Your task to perform on an android device: change alarm snooze length Image 0: 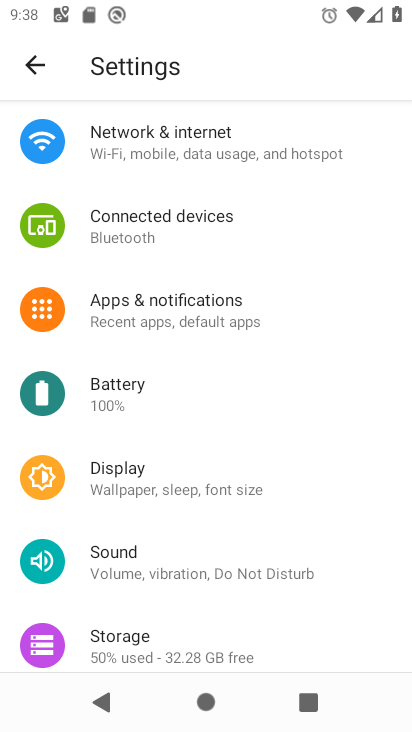
Step 0: press home button
Your task to perform on an android device: change alarm snooze length Image 1: 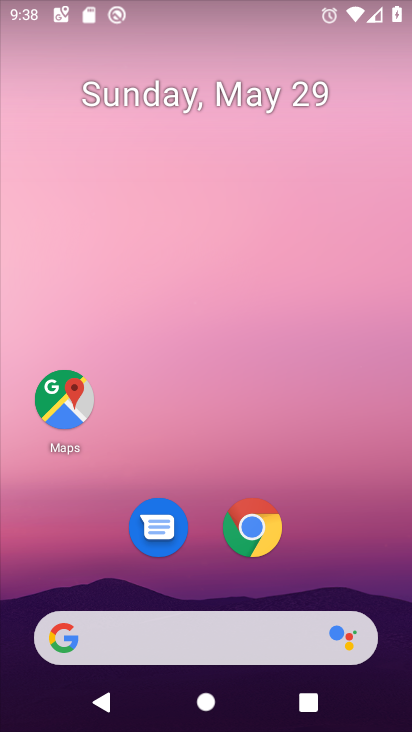
Step 1: drag from (204, 582) to (200, 107)
Your task to perform on an android device: change alarm snooze length Image 2: 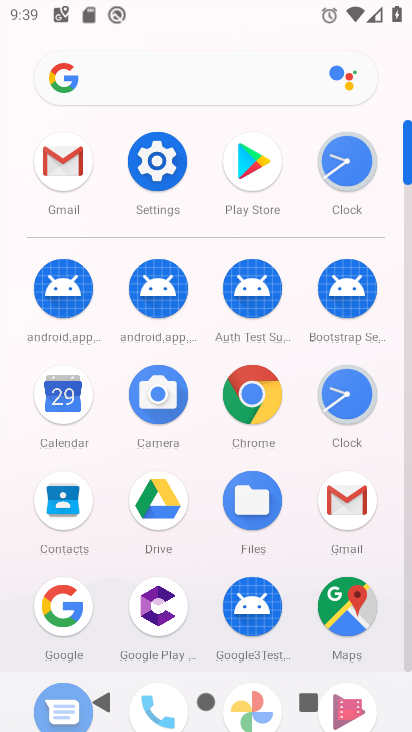
Step 2: click (345, 384)
Your task to perform on an android device: change alarm snooze length Image 3: 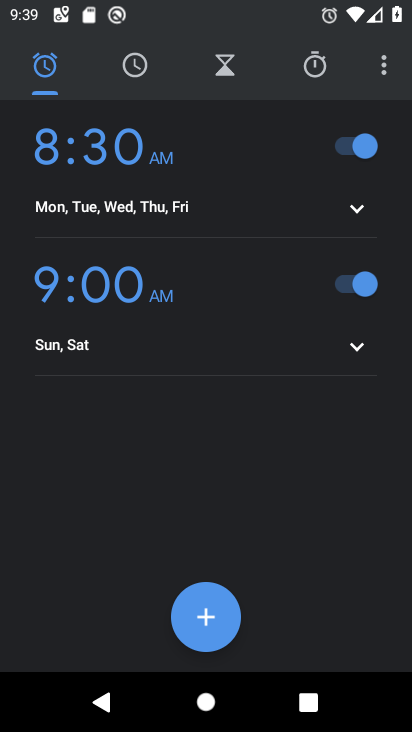
Step 3: click (378, 60)
Your task to perform on an android device: change alarm snooze length Image 4: 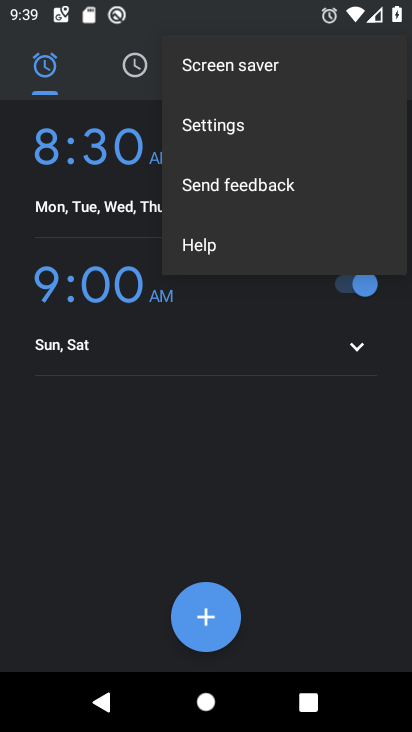
Step 4: click (253, 120)
Your task to perform on an android device: change alarm snooze length Image 5: 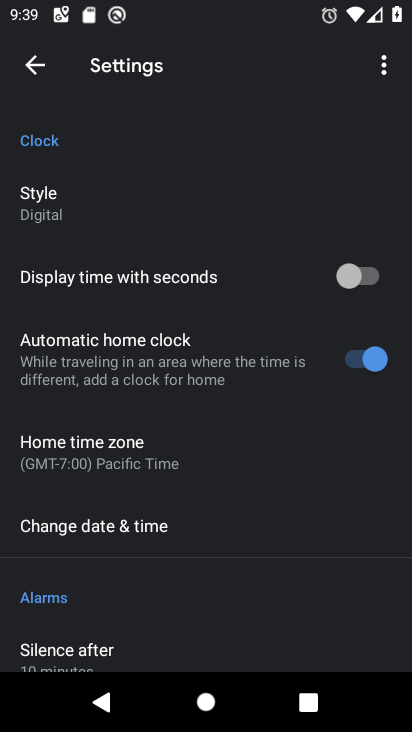
Step 5: drag from (170, 639) to (171, 169)
Your task to perform on an android device: change alarm snooze length Image 6: 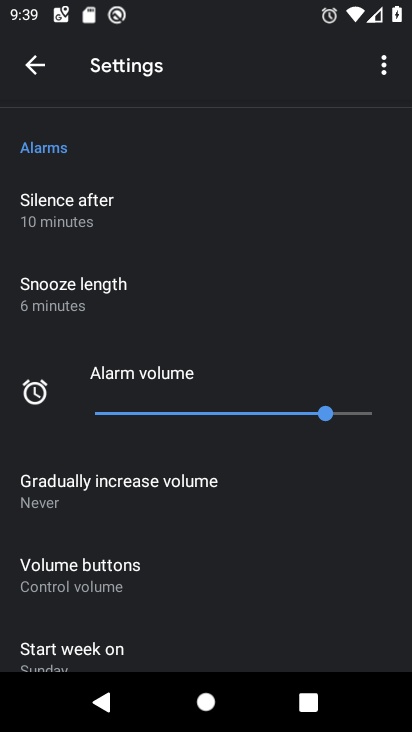
Step 6: click (149, 293)
Your task to perform on an android device: change alarm snooze length Image 7: 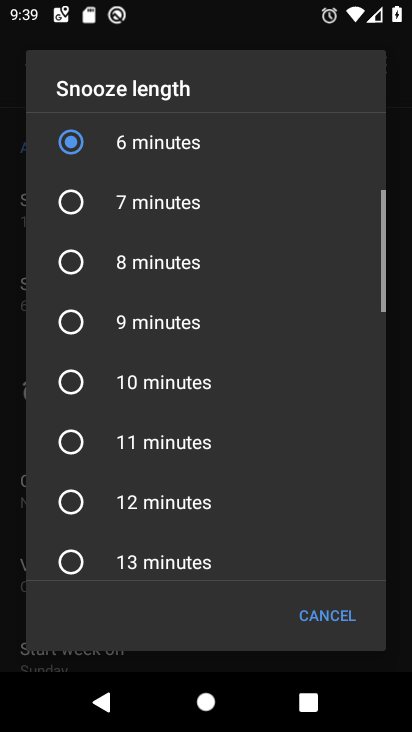
Step 7: click (72, 324)
Your task to perform on an android device: change alarm snooze length Image 8: 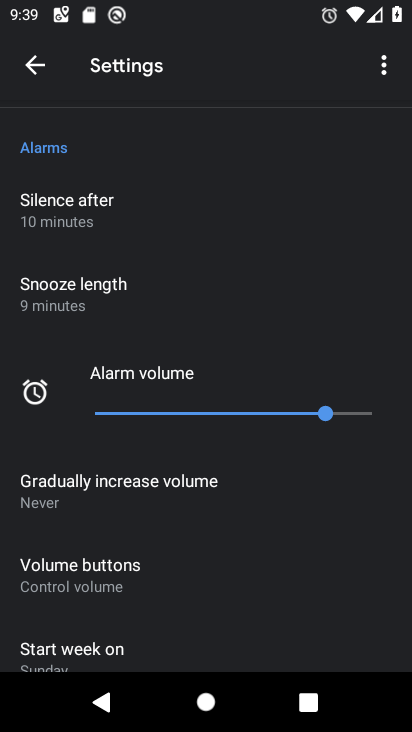
Step 8: task complete